Your task to perform on an android device: Go to ESPN.com Image 0: 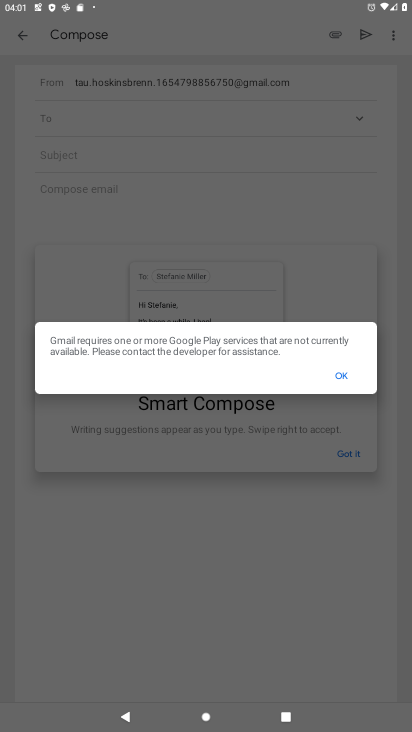
Step 0: press home button
Your task to perform on an android device: Go to ESPN.com Image 1: 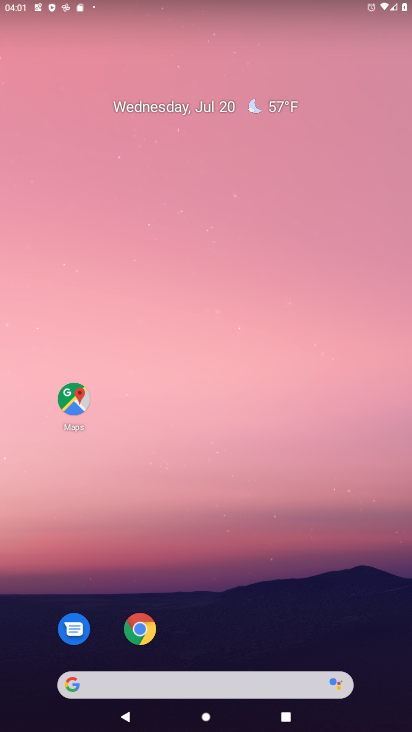
Step 1: click (140, 627)
Your task to perform on an android device: Go to ESPN.com Image 2: 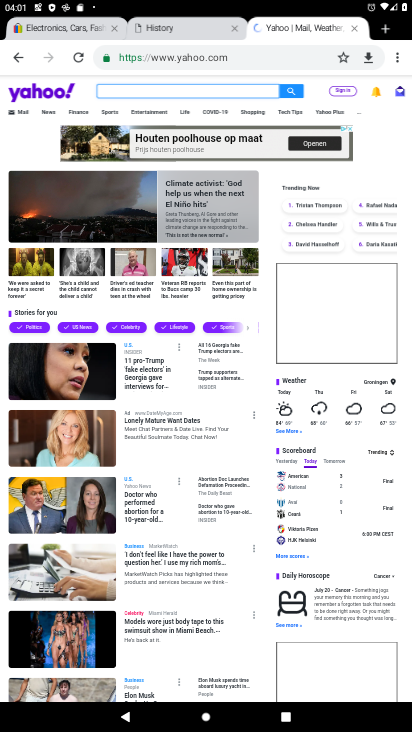
Step 2: click (254, 54)
Your task to perform on an android device: Go to ESPN.com Image 3: 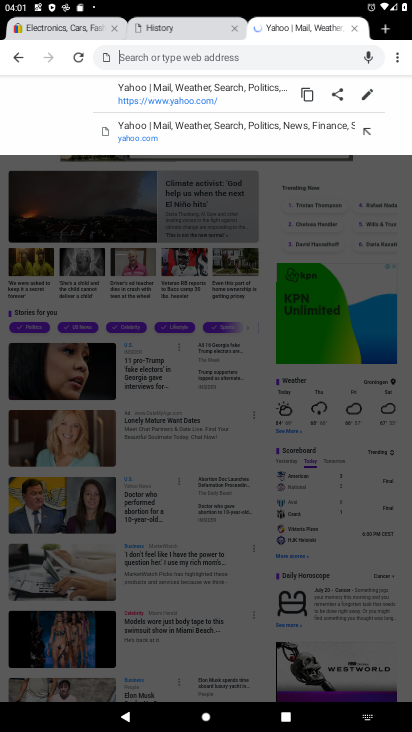
Step 3: type "espn.com"
Your task to perform on an android device: Go to ESPN.com Image 4: 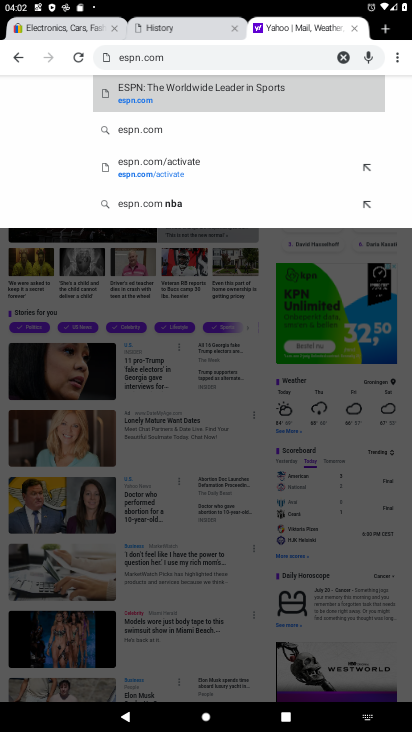
Step 4: click (157, 85)
Your task to perform on an android device: Go to ESPN.com Image 5: 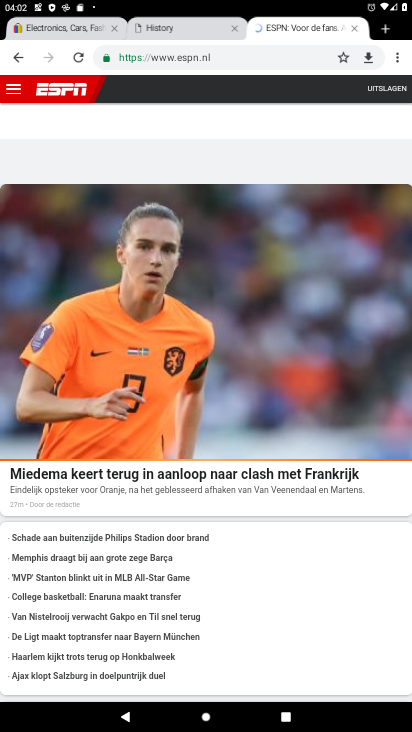
Step 5: task complete